Your task to perform on an android device: Go to Google maps Image 0: 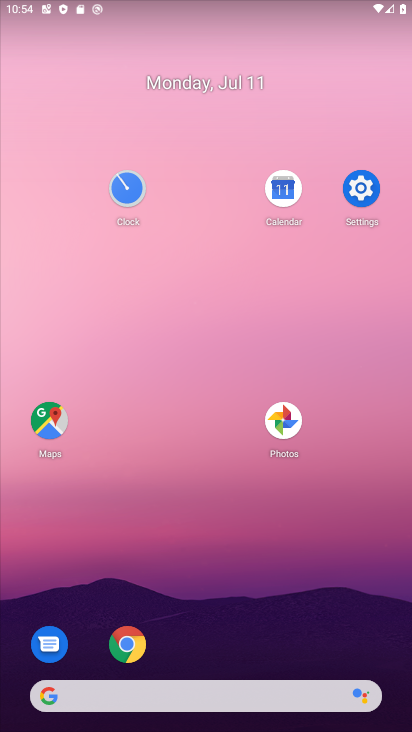
Step 0: click (43, 420)
Your task to perform on an android device: Go to Google maps Image 1: 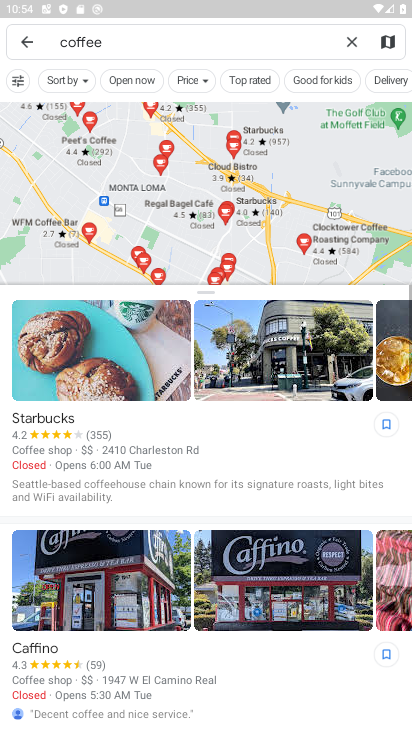
Step 1: task complete